Your task to perform on an android device: toggle sleep mode Image 0: 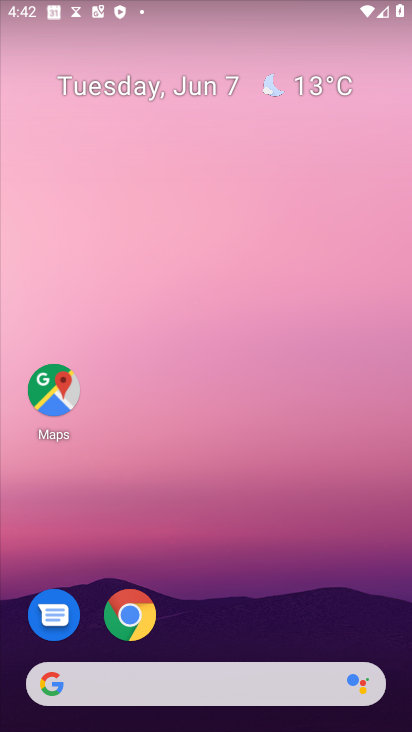
Step 0: drag from (260, 679) to (179, 1)
Your task to perform on an android device: toggle sleep mode Image 1: 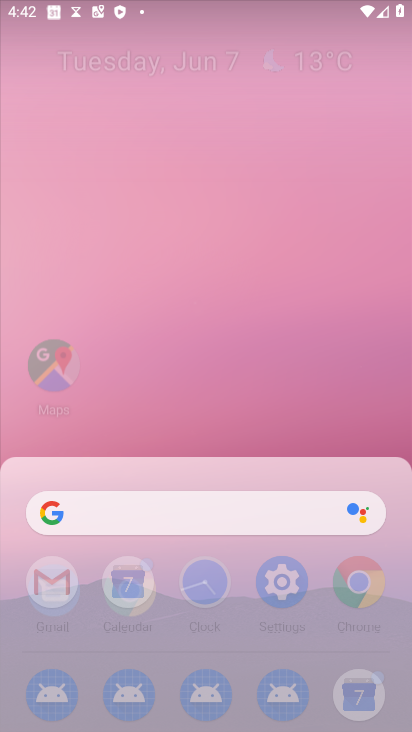
Step 1: drag from (246, 516) to (199, 78)
Your task to perform on an android device: toggle sleep mode Image 2: 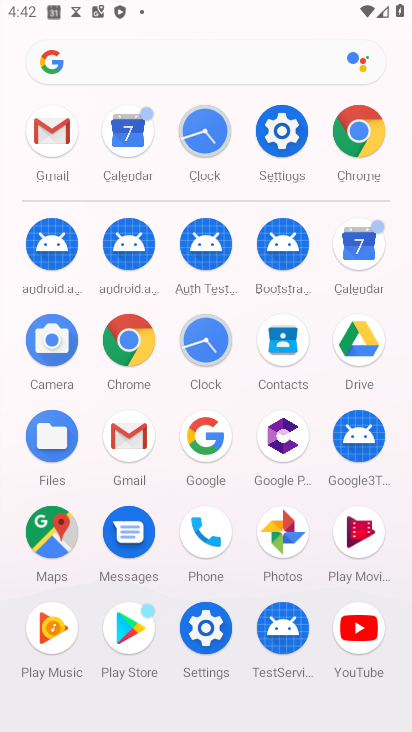
Step 2: drag from (279, 622) to (255, 0)
Your task to perform on an android device: toggle sleep mode Image 3: 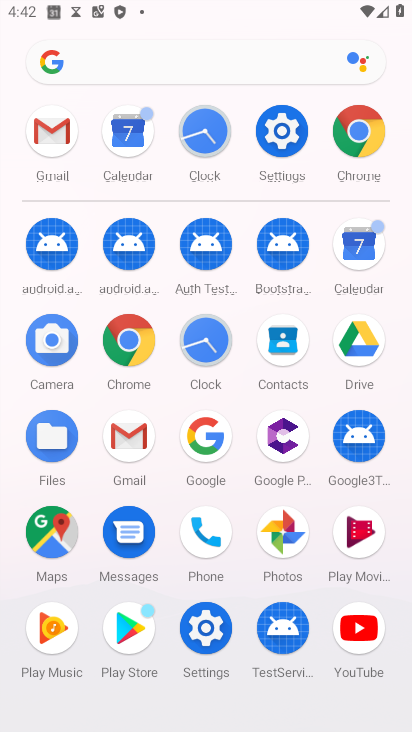
Step 3: click (276, 137)
Your task to perform on an android device: toggle sleep mode Image 4: 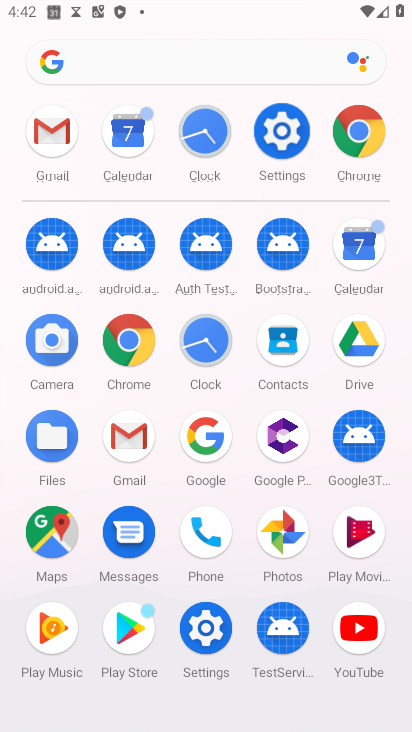
Step 4: click (276, 137)
Your task to perform on an android device: toggle sleep mode Image 5: 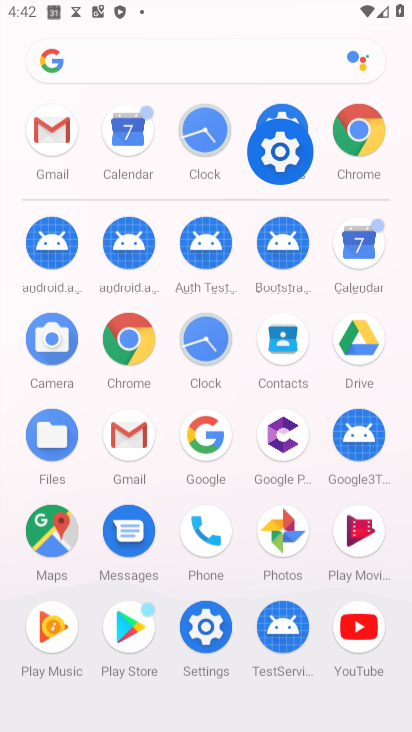
Step 5: click (276, 137)
Your task to perform on an android device: toggle sleep mode Image 6: 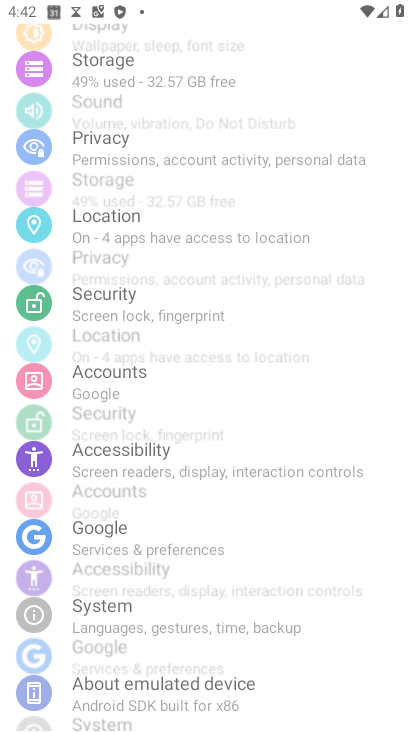
Step 6: click (273, 137)
Your task to perform on an android device: toggle sleep mode Image 7: 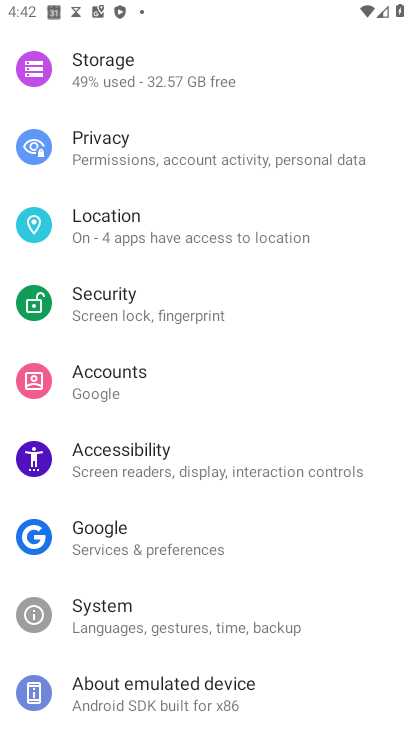
Step 7: click (268, 138)
Your task to perform on an android device: toggle sleep mode Image 8: 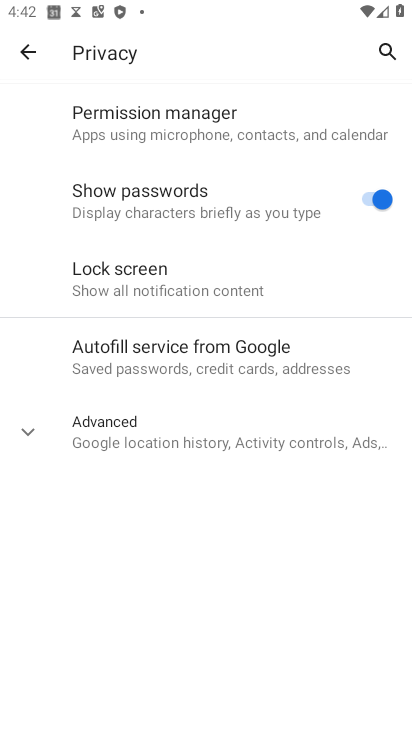
Step 8: click (24, 42)
Your task to perform on an android device: toggle sleep mode Image 9: 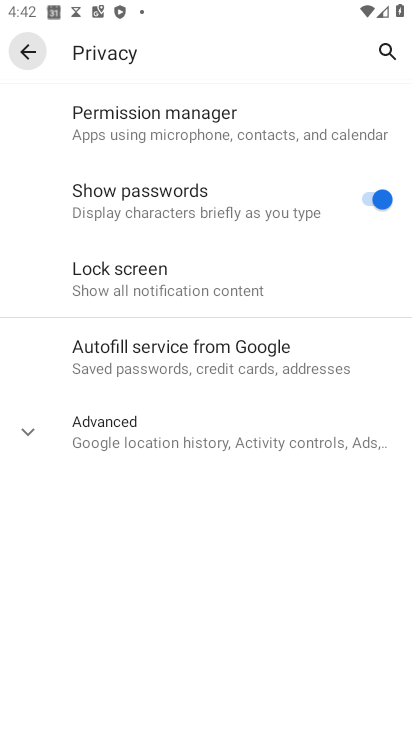
Step 9: click (25, 42)
Your task to perform on an android device: toggle sleep mode Image 10: 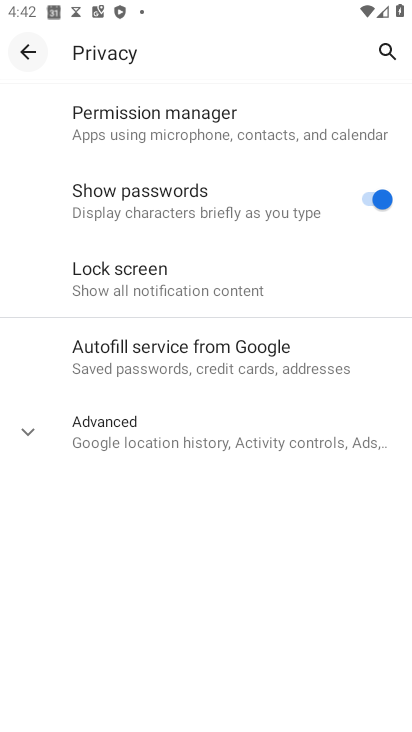
Step 10: click (26, 43)
Your task to perform on an android device: toggle sleep mode Image 11: 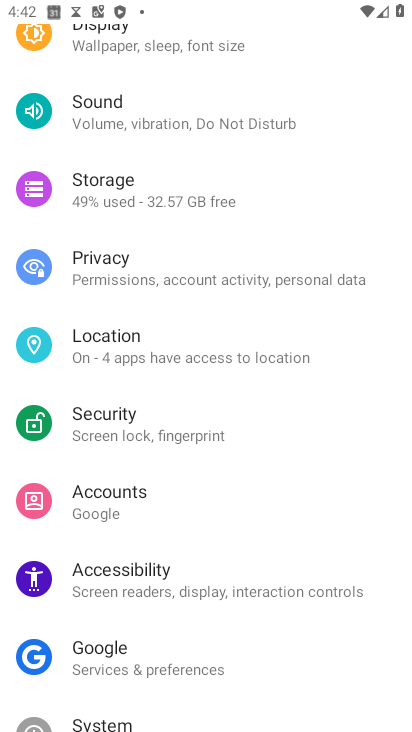
Step 11: click (141, 45)
Your task to perform on an android device: toggle sleep mode Image 12: 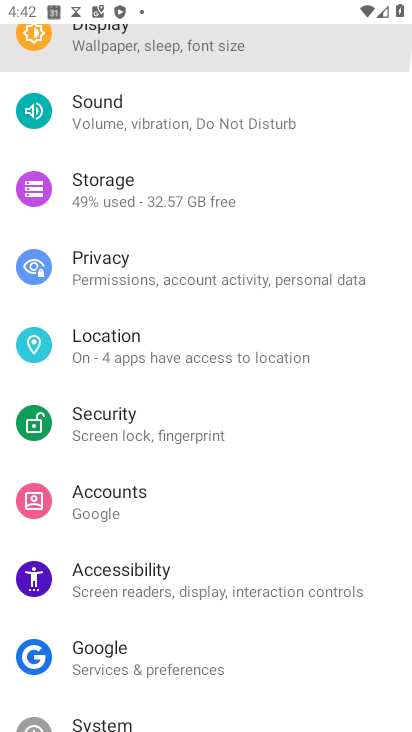
Step 12: click (141, 45)
Your task to perform on an android device: toggle sleep mode Image 13: 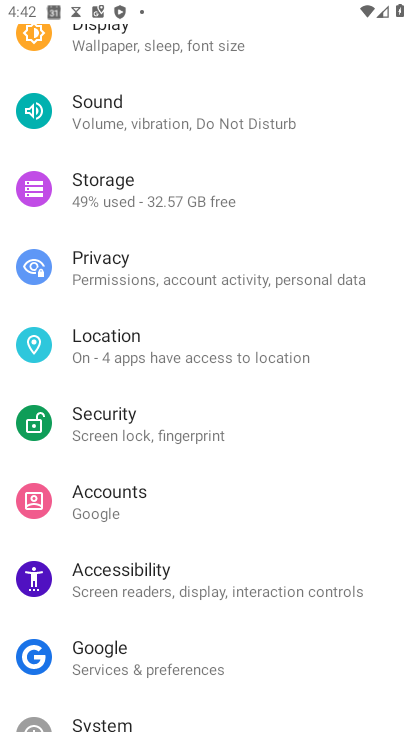
Step 13: click (141, 45)
Your task to perform on an android device: toggle sleep mode Image 14: 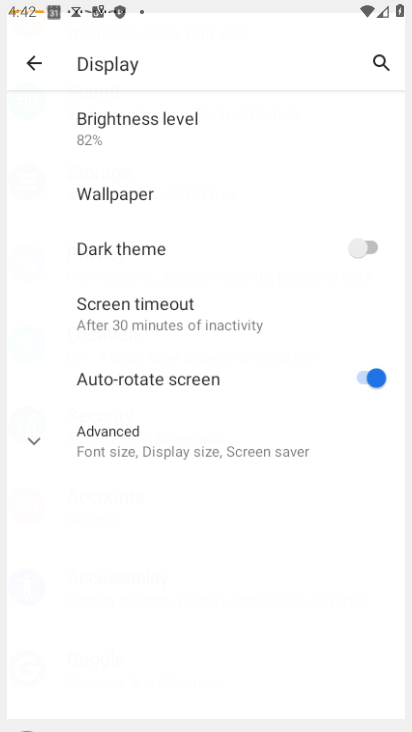
Step 14: click (141, 45)
Your task to perform on an android device: toggle sleep mode Image 15: 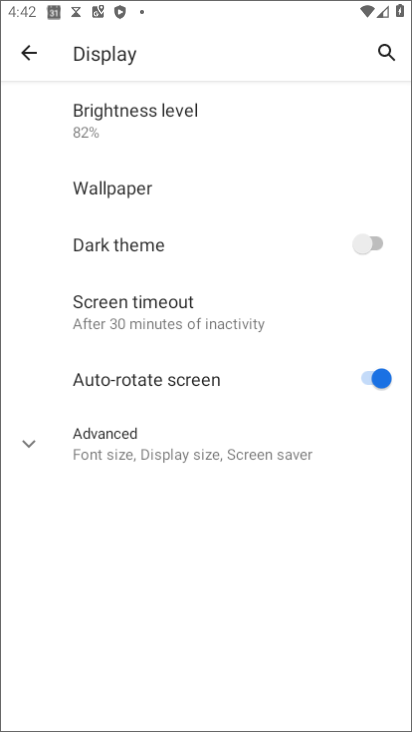
Step 15: click (141, 45)
Your task to perform on an android device: toggle sleep mode Image 16: 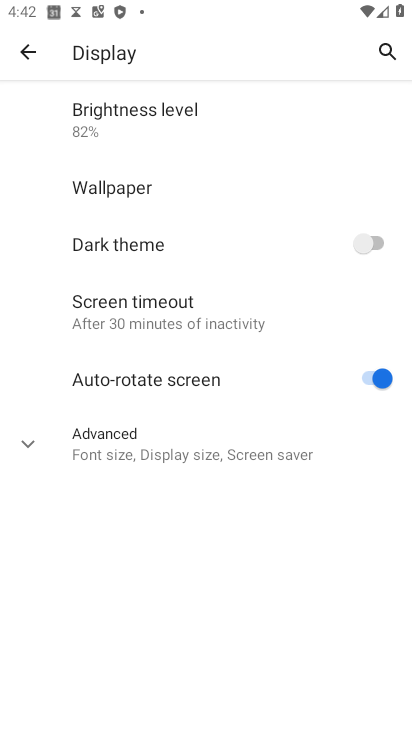
Step 16: click (133, 318)
Your task to perform on an android device: toggle sleep mode Image 17: 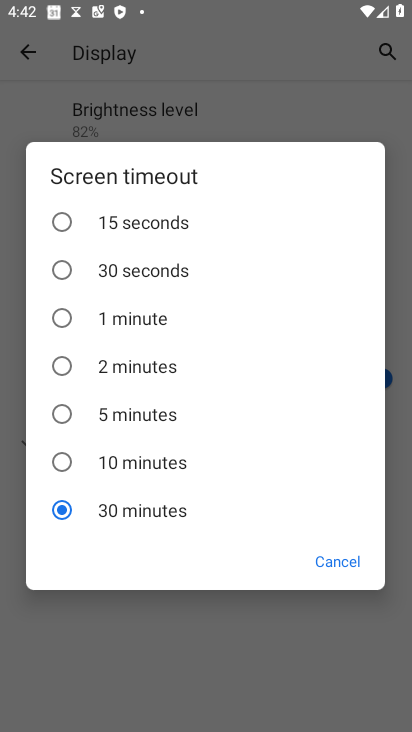
Step 17: click (52, 352)
Your task to perform on an android device: toggle sleep mode Image 18: 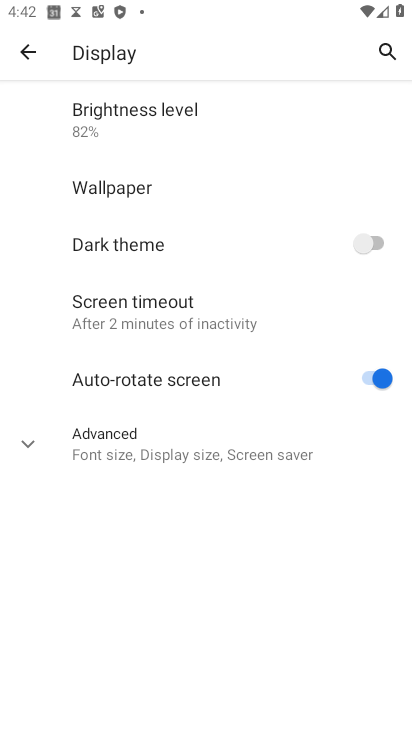
Step 18: task complete